Your task to perform on an android device: Go to Google maps Image 0: 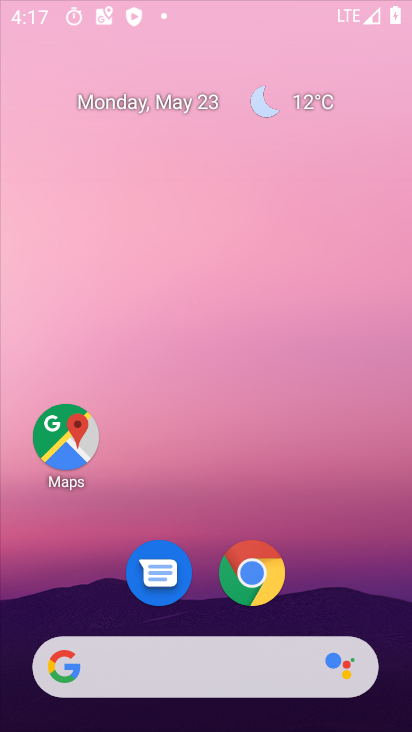
Step 0: click (255, 575)
Your task to perform on an android device: Go to Google maps Image 1: 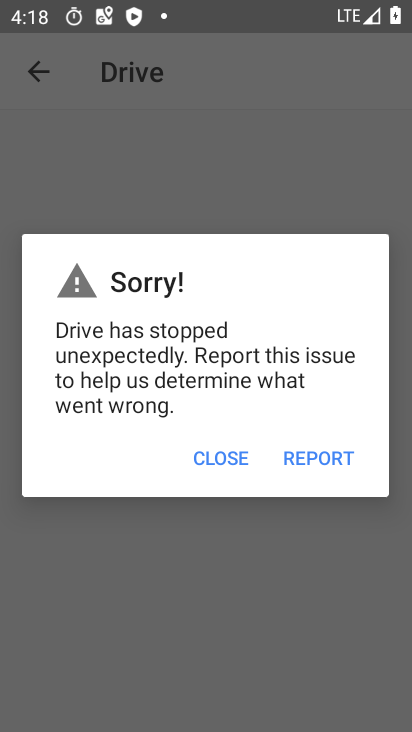
Step 1: press home button
Your task to perform on an android device: Go to Google maps Image 2: 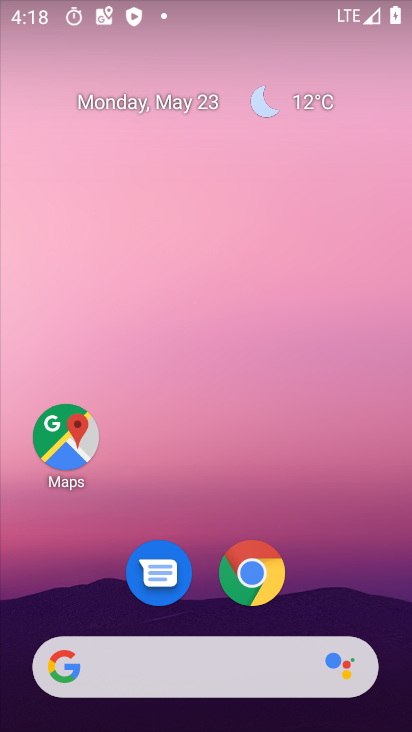
Step 2: click (58, 433)
Your task to perform on an android device: Go to Google maps Image 3: 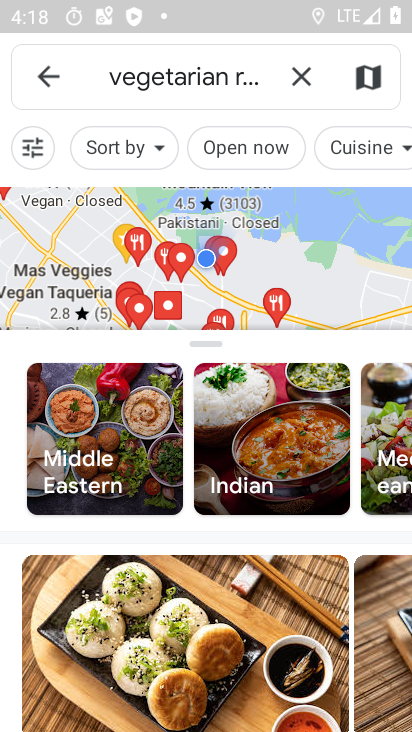
Step 3: task complete